Your task to perform on an android device: Open sound settings Image 0: 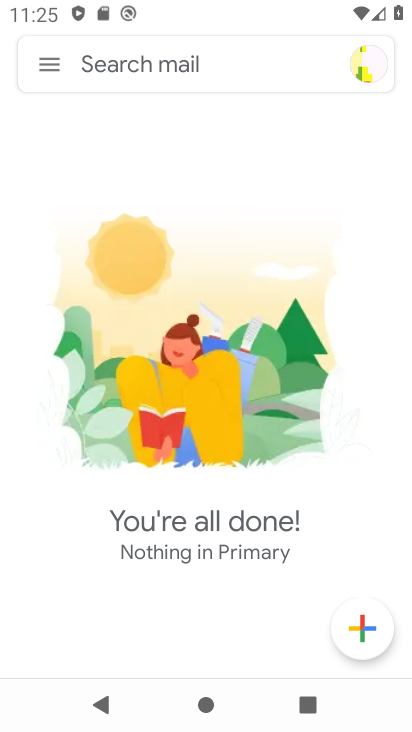
Step 0: press back button
Your task to perform on an android device: Open sound settings Image 1: 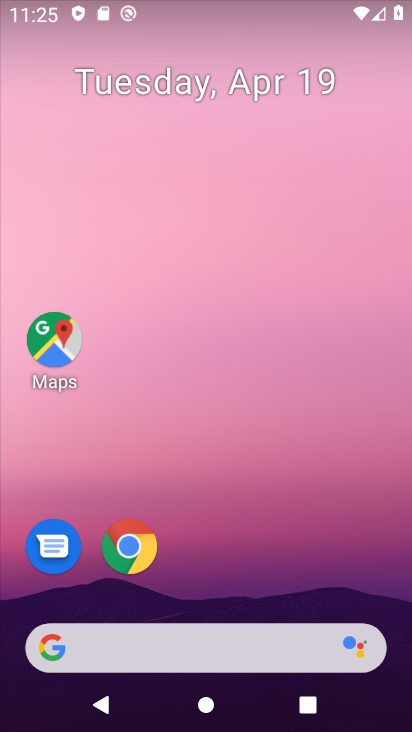
Step 1: drag from (285, 506) to (239, 59)
Your task to perform on an android device: Open sound settings Image 2: 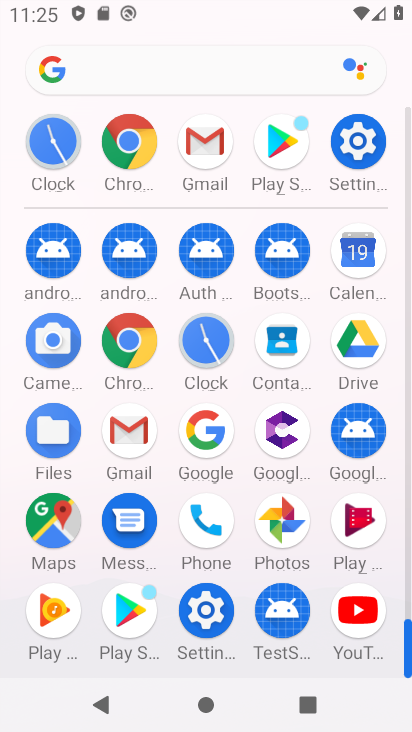
Step 2: click (357, 143)
Your task to perform on an android device: Open sound settings Image 3: 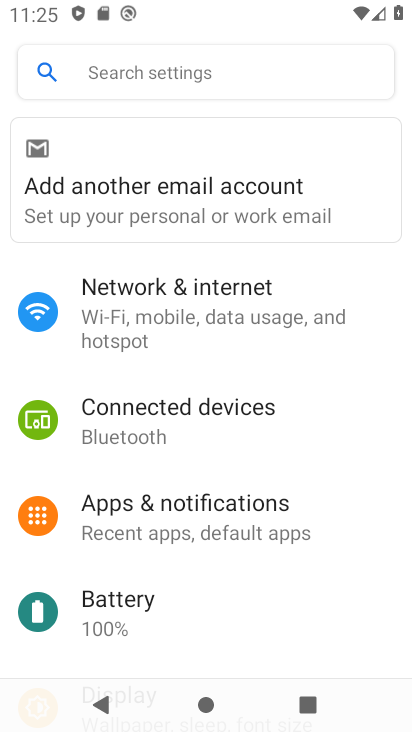
Step 3: drag from (266, 563) to (281, 288)
Your task to perform on an android device: Open sound settings Image 4: 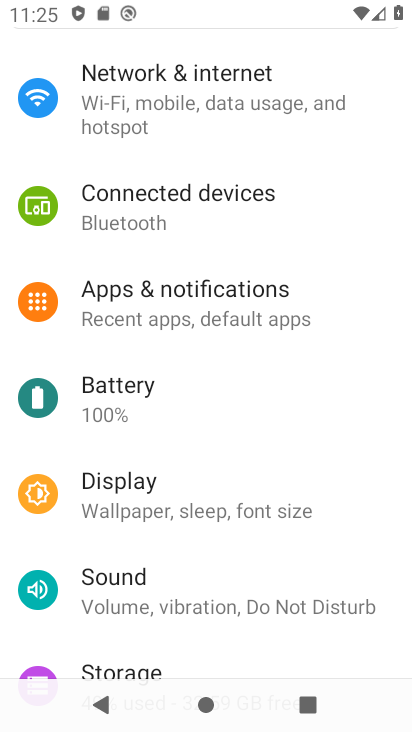
Step 4: click (154, 583)
Your task to perform on an android device: Open sound settings Image 5: 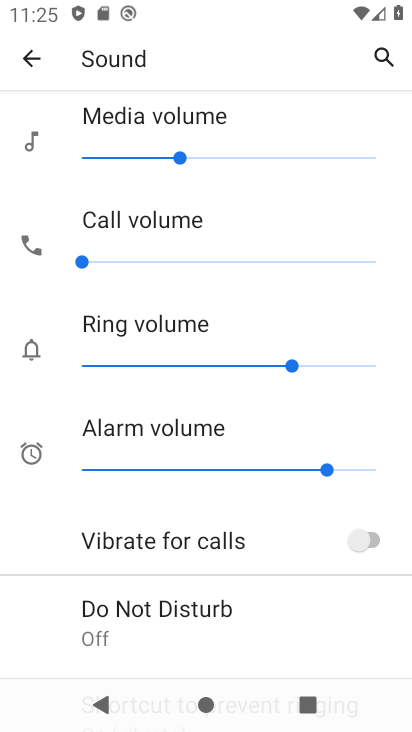
Step 5: task complete